Your task to perform on an android device: move a message to another label in the gmail app Image 0: 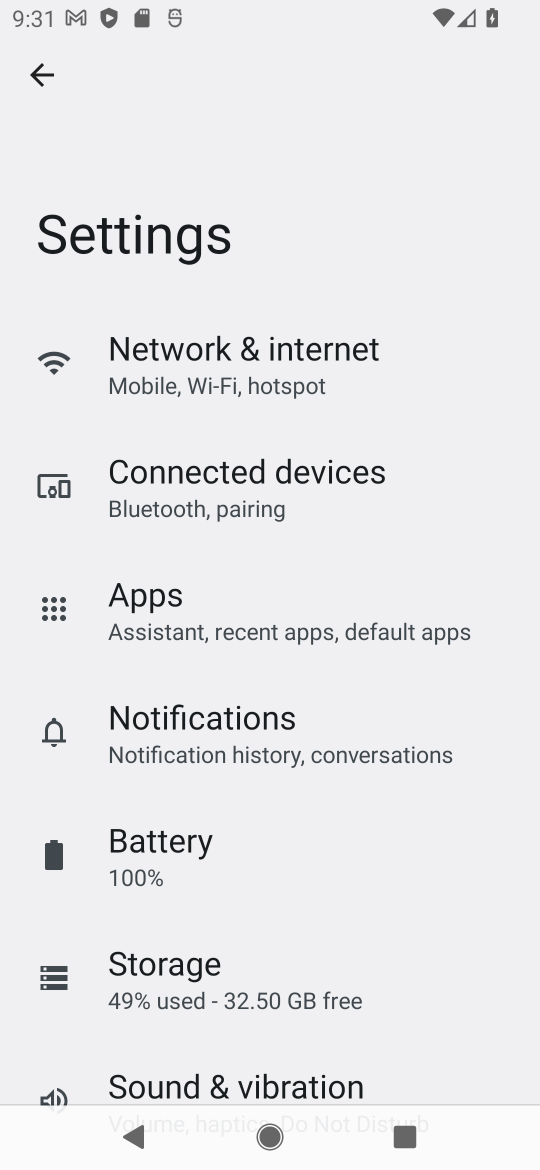
Step 0: press home button
Your task to perform on an android device: move a message to another label in the gmail app Image 1: 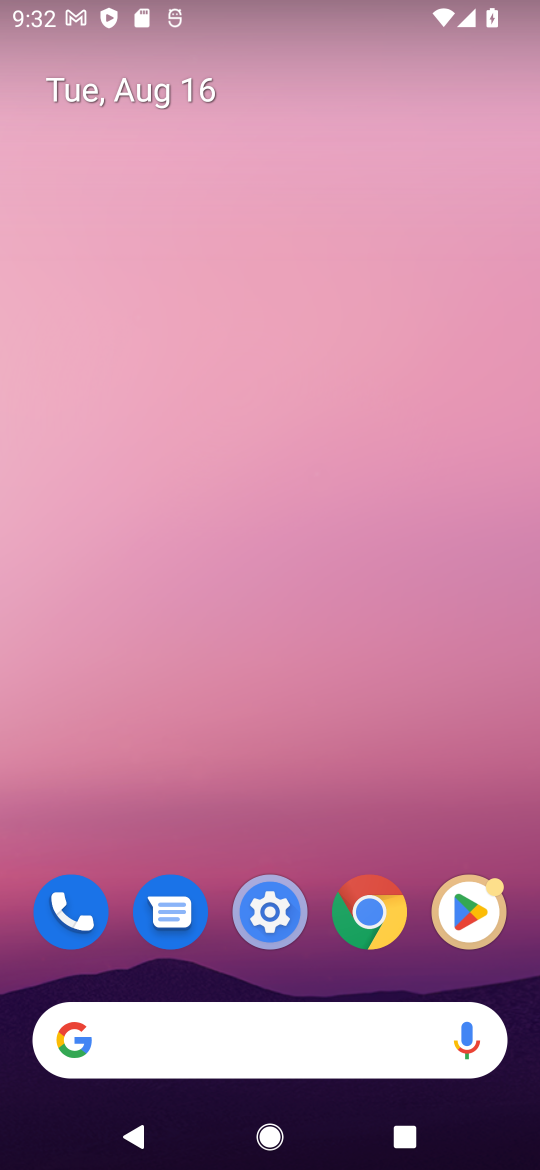
Step 1: drag from (301, 974) to (236, 86)
Your task to perform on an android device: move a message to another label in the gmail app Image 2: 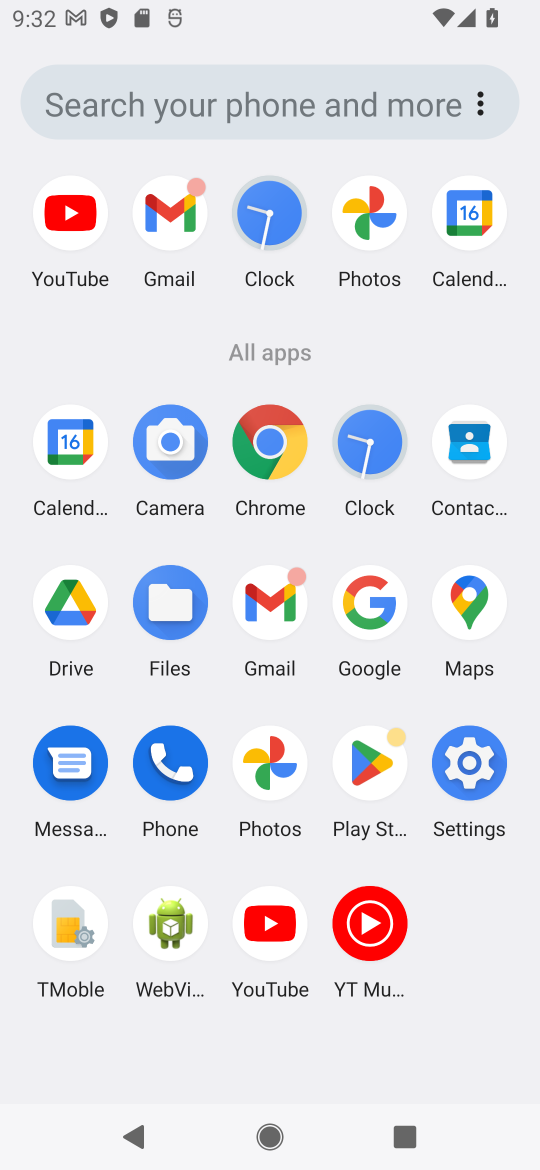
Step 2: click (153, 208)
Your task to perform on an android device: move a message to another label in the gmail app Image 3: 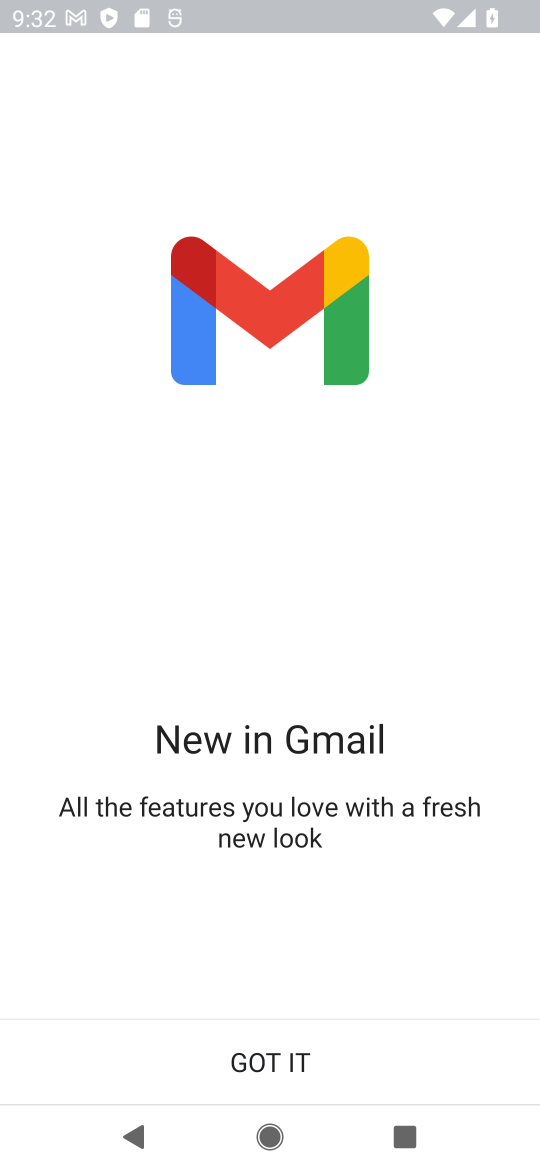
Step 3: click (234, 1031)
Your task to perform on an android device: move a message to another label in the gmail app Image 4: 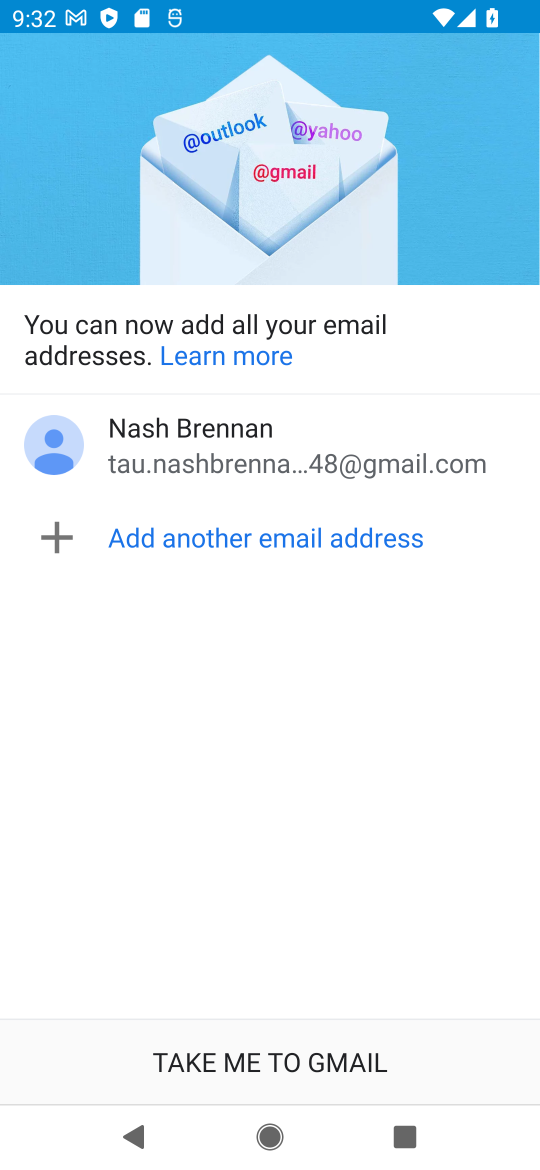
Step 4: click (234, 1031)
Your task to perform on an android device: move a message to another label in the gmail app Image 5: 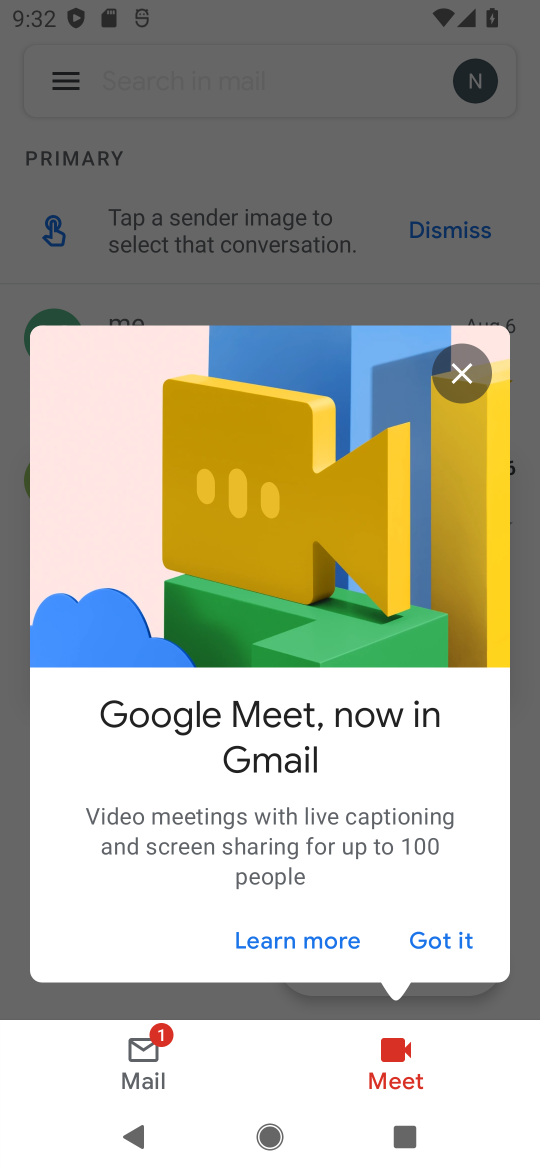
Step 5: click (439, 950)
Your task to perform on an android device: move a message to another label in the gmail app Image 6: 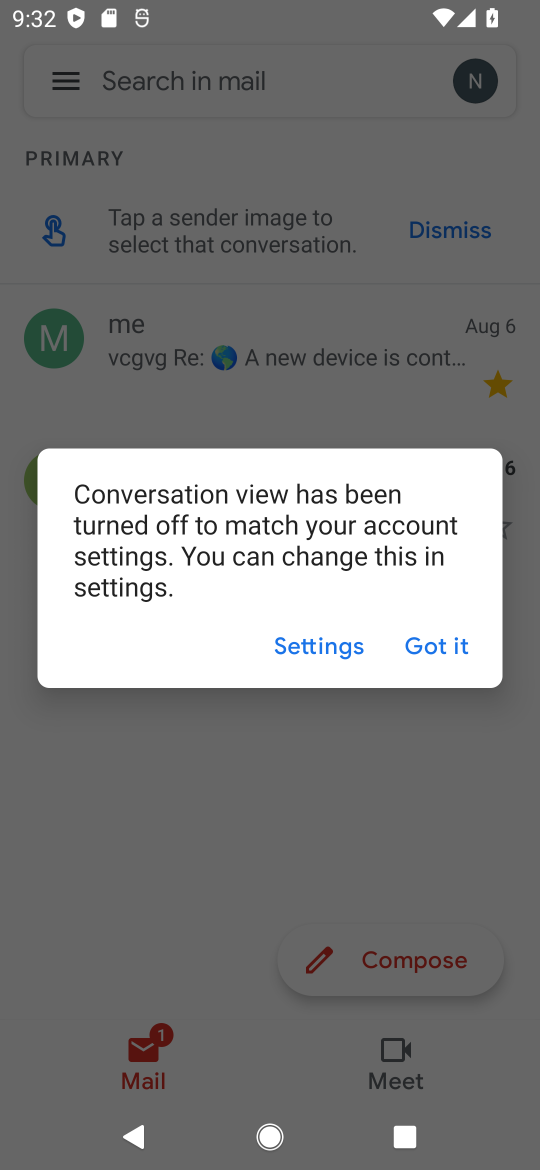
Step 6: click (456, 654)
Your task to perform on an android device: move a message to another label in the gmail app Image 7: 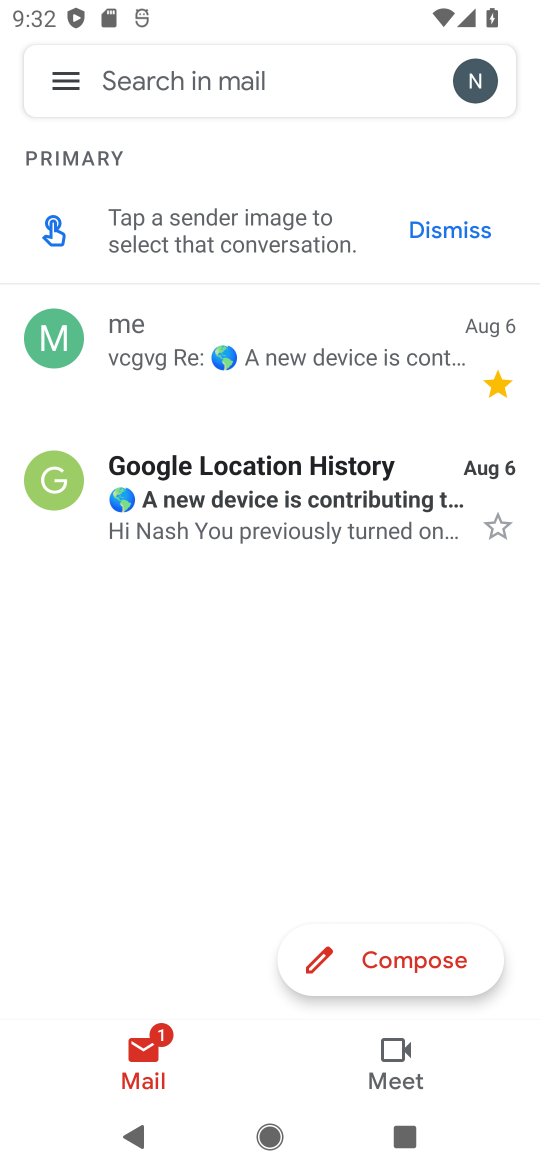
Step 7: click (46, 491)
Your task to perform on an android device: move a message to another label in the gmail app Image 8: 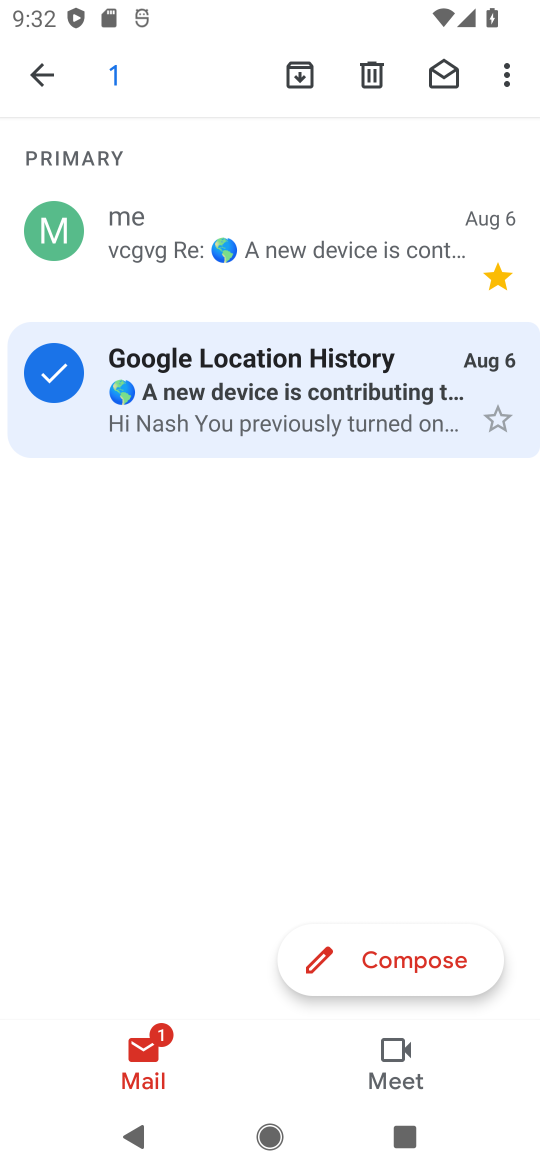
Step 8: click (504, 84)
Your task to perform on an android device: move a message to another label in the gmail app Image 9: 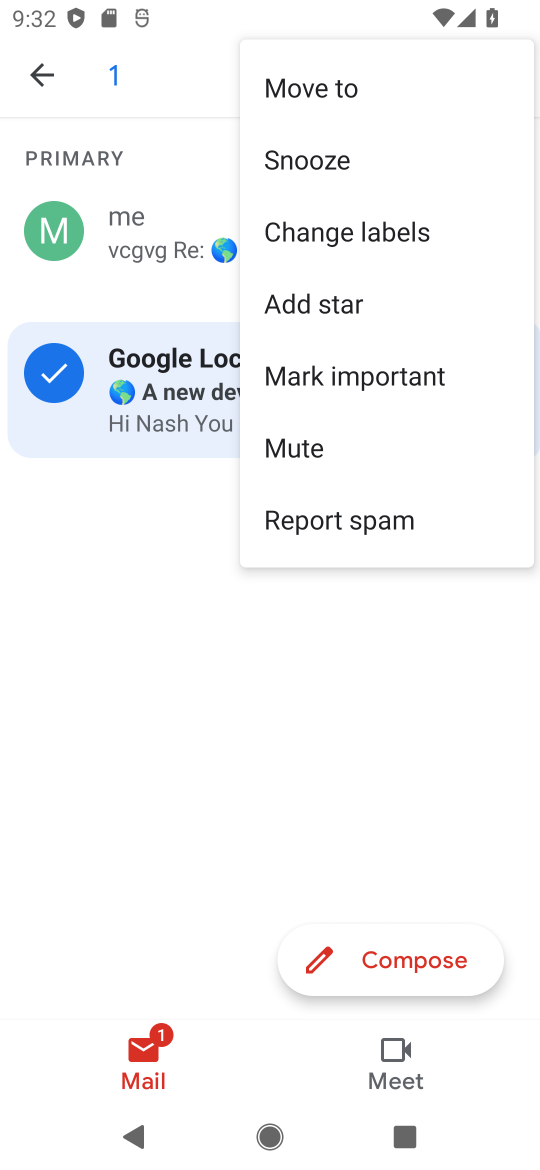
Step 9: click (349, 227)
Your task to perform on an android device: move a message to another label in the gmail app Image 10: 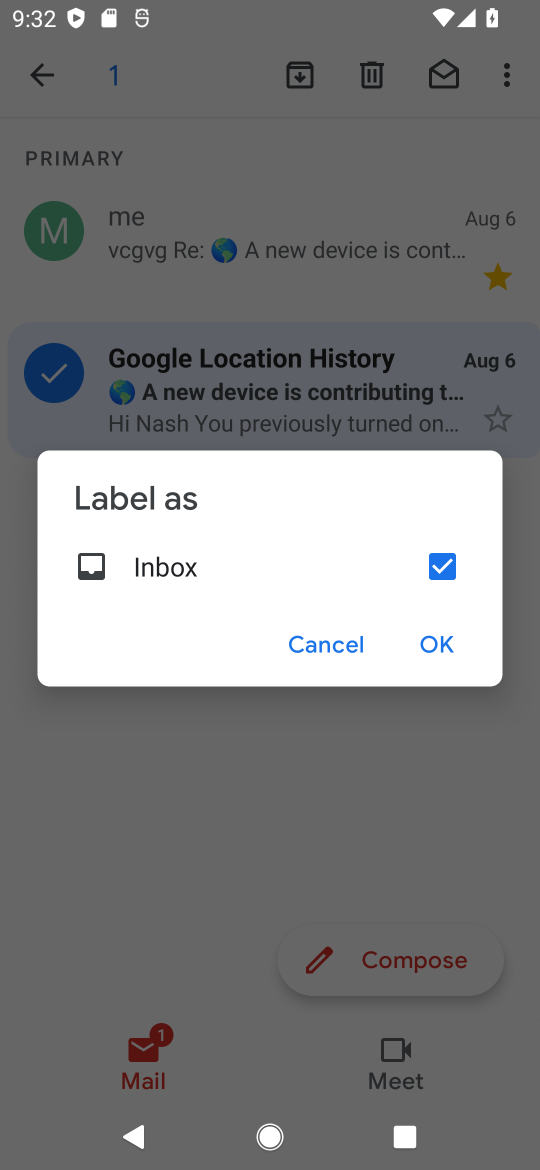
Step 10: click (457, 641)
Your task to perform on an android device: move a message to another label in the gmail app Image 11: 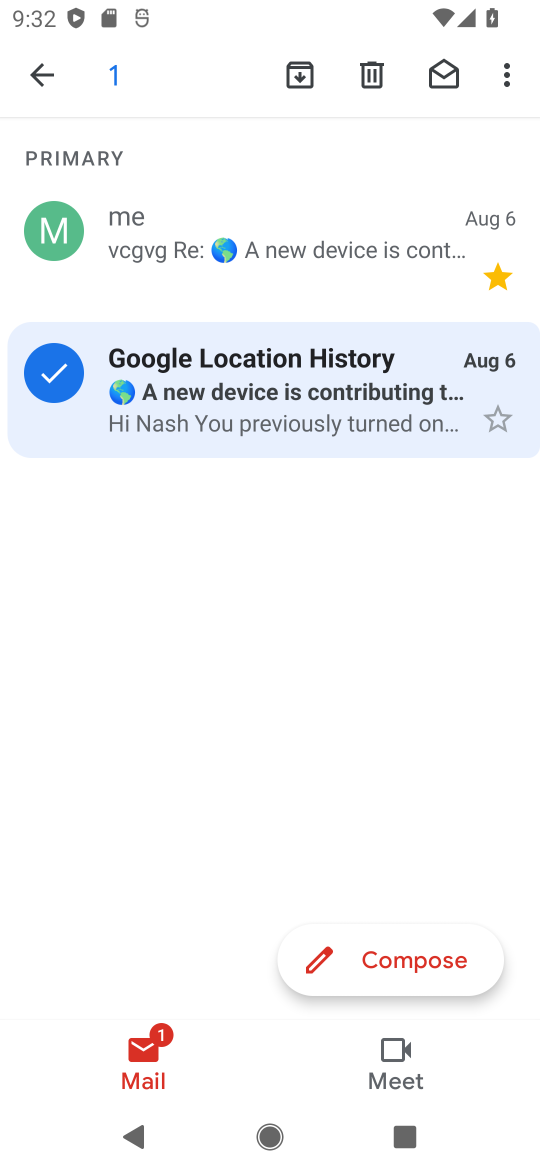
Step 11: task complete